Your task to perform on an android device: turn on notifications settings in the gmail app Image 0: 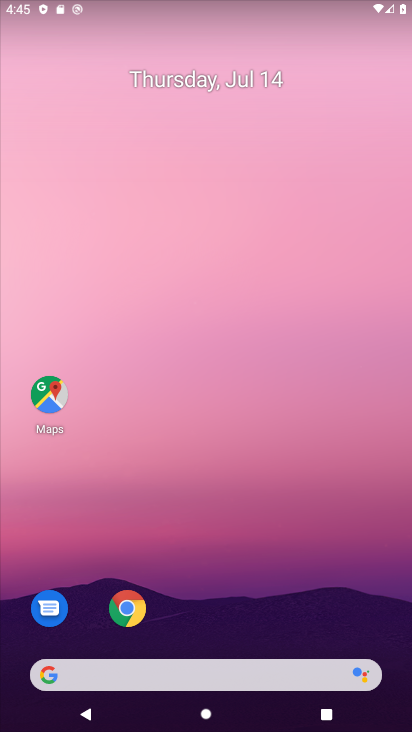
Step 0: drag from (353, 581) to (275, 37)
Your task to perform on an android device: turn on notifications settings in the gmail app Image 1: 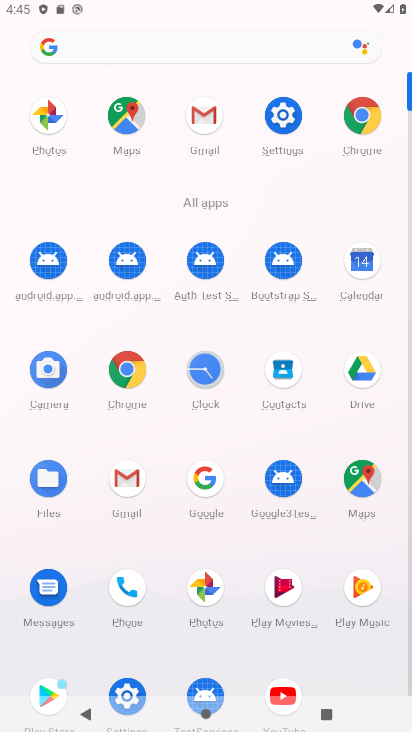
Step 1: click (195, 115)
Your task to perform on an android device: turn on notifications settings in the gmail app Image 2: 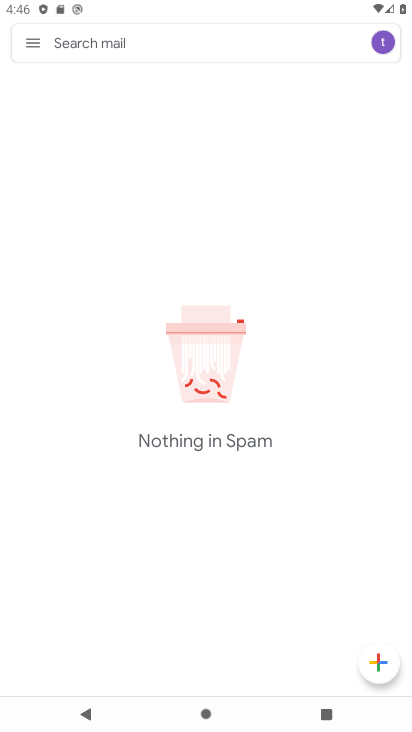
Step 2: click (28, 39)
Your task to perform on an android device: turn on notifications settings in the gmail app Image 3: 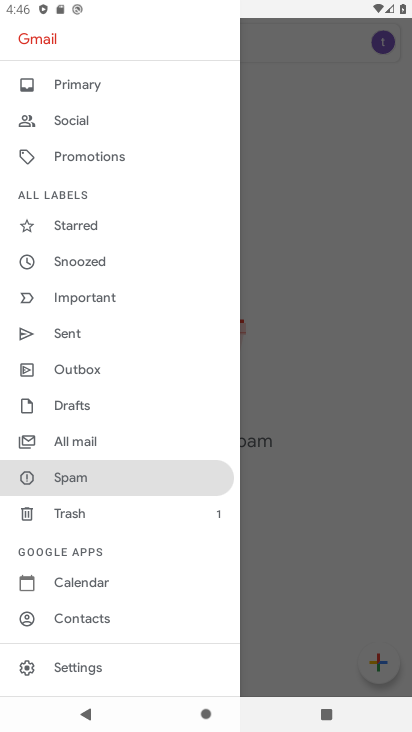
Step 3: click (86, 675)
Your task to perform on an android device: turn on notifications settings in the gmail app Image 4: 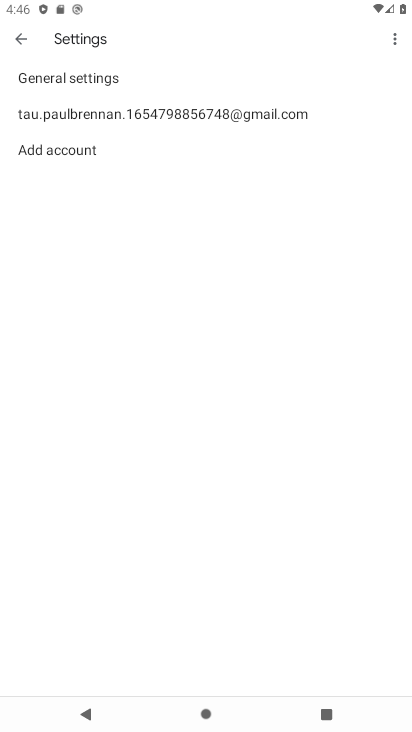
Step 4: click (95, 112)
Your task to perform on an android device: turn on notifications settings in the gmail app Image 5: 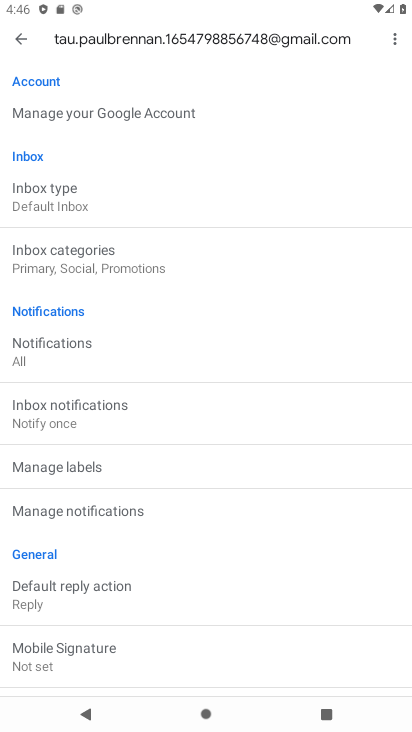
Step 5: click (112, 522)
Your task to perform on an android device: turn on notifications settings in the gmail app Image 6: 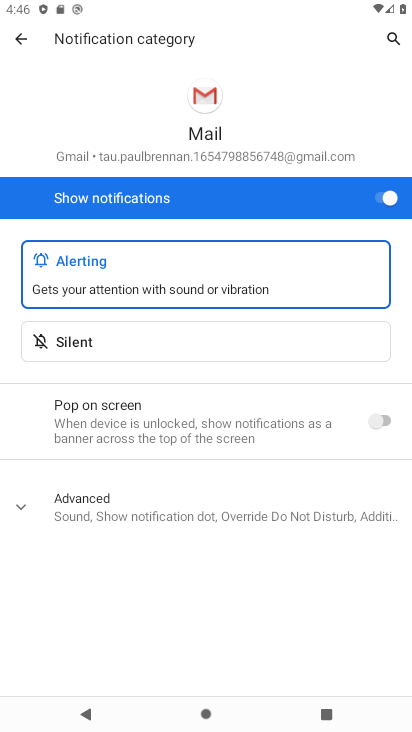
Step 6: task complete